Your task to perform on an android device: toggle translation in the chrome app Image 0: 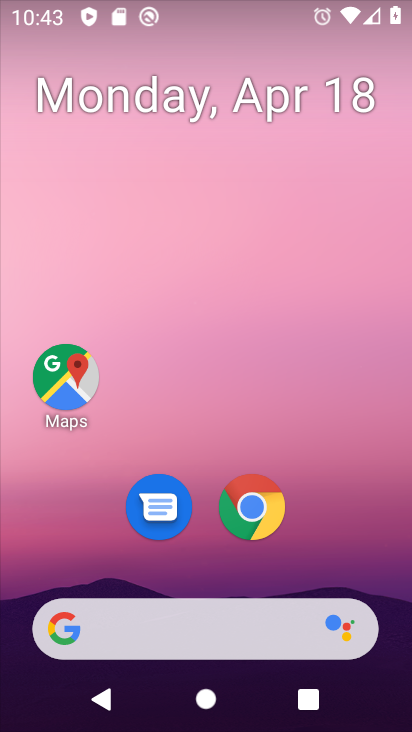
Step 0: drag from (256, 651) to (214, 102)
Your task to perform on an android device: toggle translation in the chrome app Image 1: 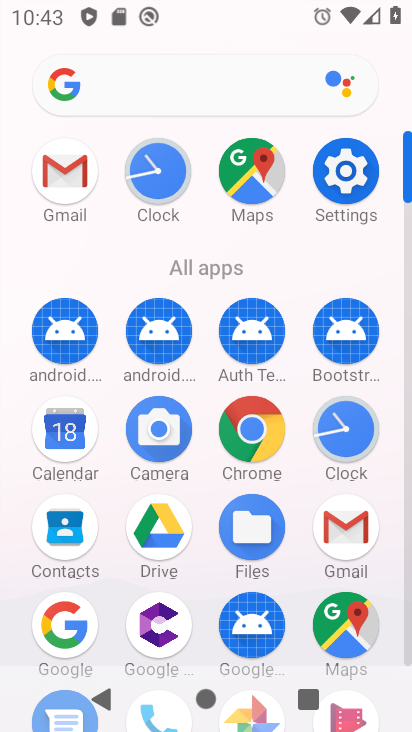
Step 1: click (251, 423)
Your task to perform on an android device: toggle translation in the chrome app Image 2: 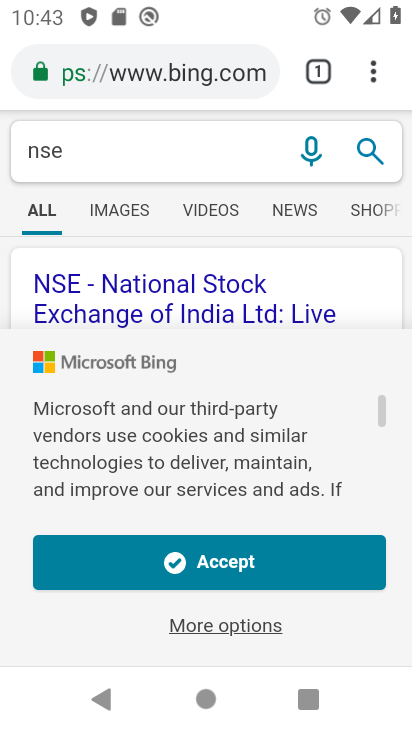
Step 2: click (310, 70)
Your task to perform on an android device: toggle translation in the chrome app Image 3: 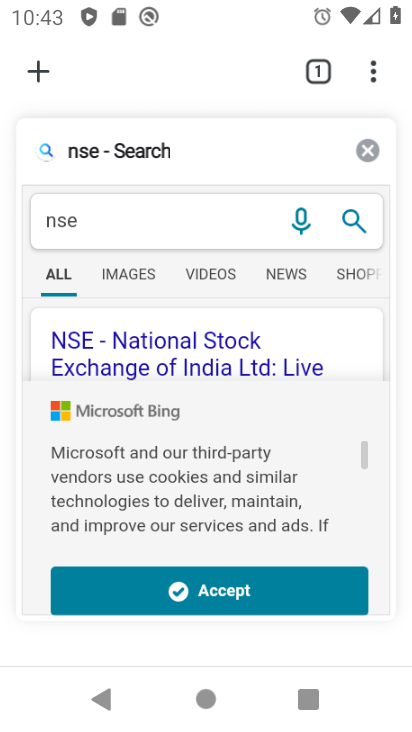
Step 3: click (44, 81)
Your task to perform on an android device: toggle translation in the chrome app Image 4: 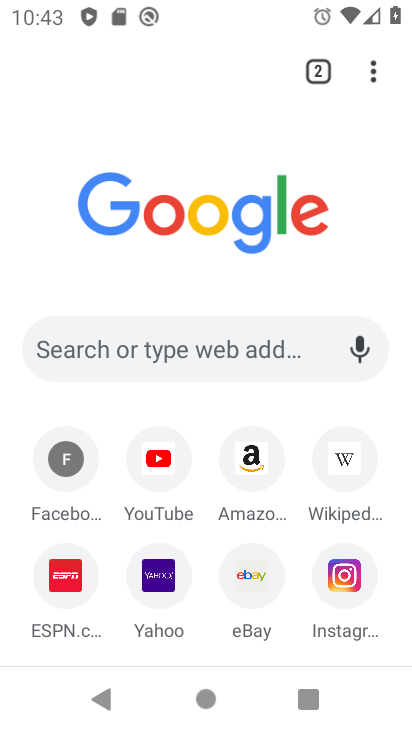
Step 4: click (373, 84)
Your task to perform on an android device: toggle translation in the chrome app Image 5: 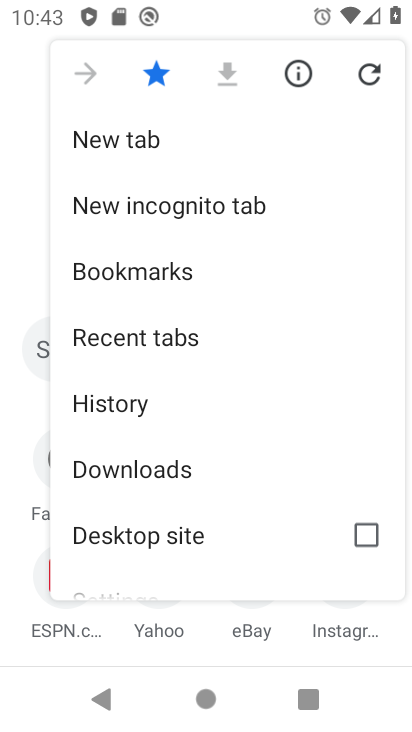
Step 5: click (118, 583)
Your task to perform on an android device: toggle translation in the chrome app Image 6: 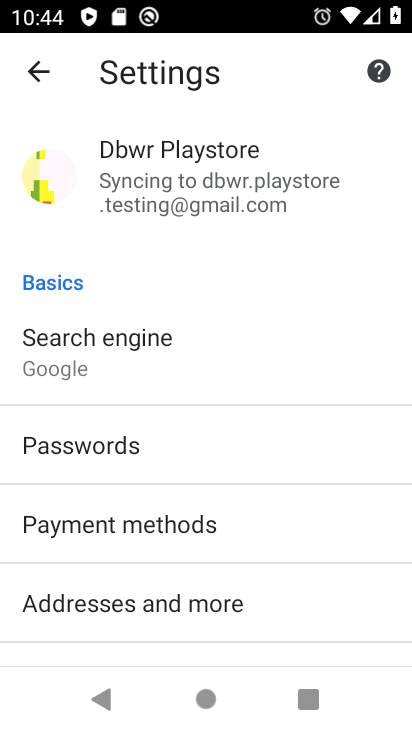
Step 6: drag from (109, 527) to (203, 227)
Your task to perform on an android device: toggle translation in the chrome app Image 7: 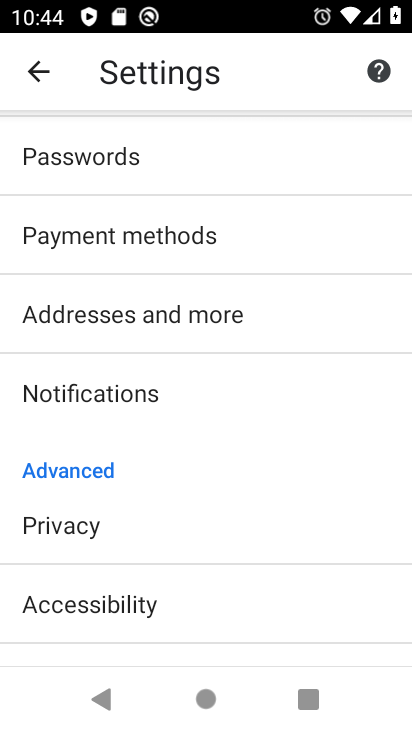
Step 7: drag from (131, 512) to (222, 277)
Your task to perform on an android device: toggle translation in the chrome app Image 8: 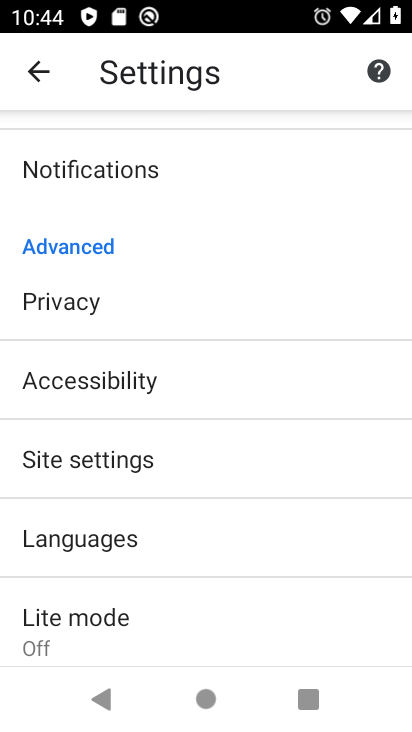
Step 8: click (104, 534)
Your task to perform on an android device: toggle translation in the chrome app Image 9: 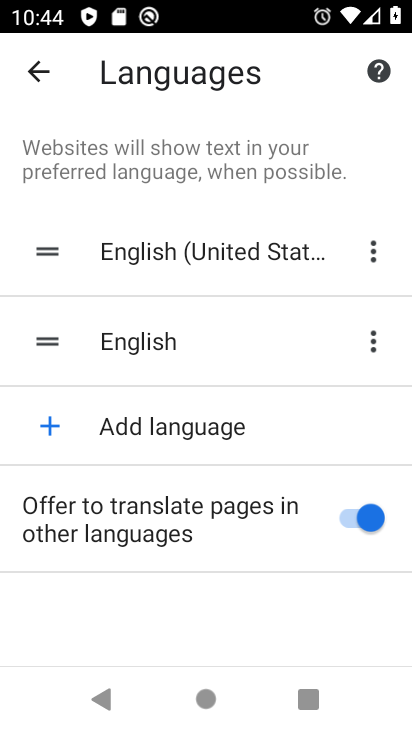
Step 9: click (192, 482)
Your task to perform on an android device: toggle translation in the chrome app Image 10: 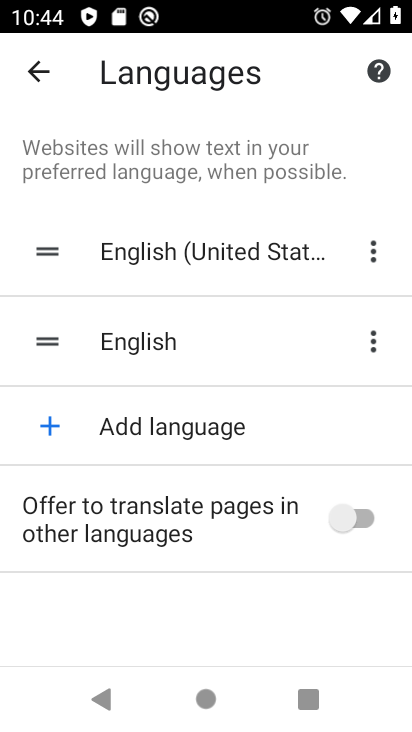
Step 10: click (188, 508)
Your task to perform on an android device: toggle translation in the chrome app Image 11: 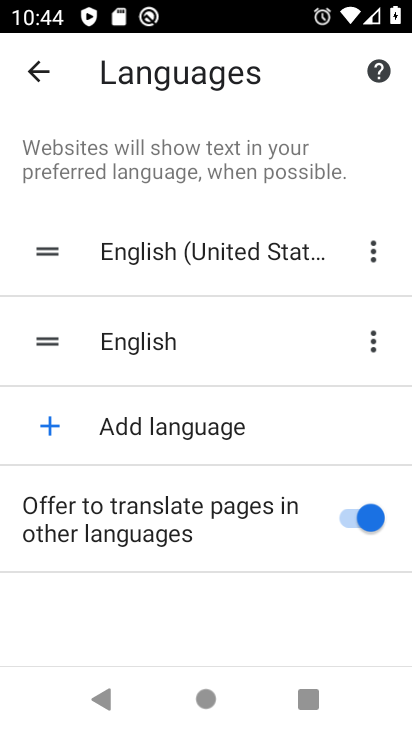
Step 11: task complete